Your task to perform on an android device: Show me the alarms in the clock app Image 0: 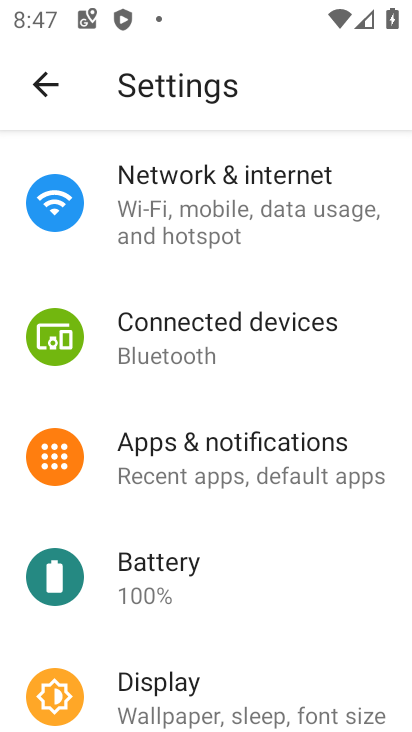
Step 0: press home button
Your task to perform on an android device: Show me the alarms in the clock app Image 1: 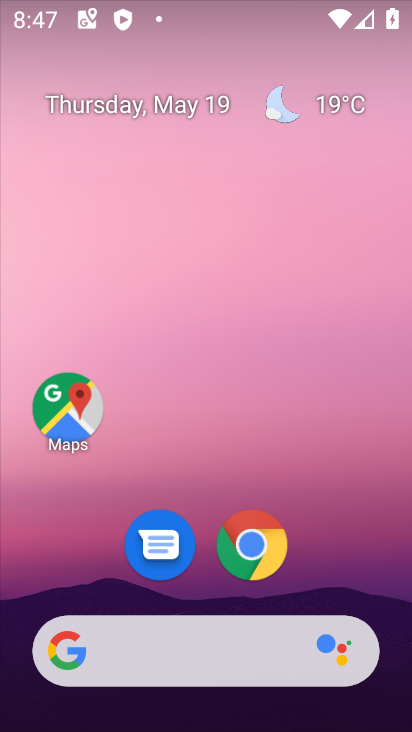
Step 1: drag from (366, 546) to (369, 144)
Your task to perform on an android device: Show me the alarms in the clock app Image 2: 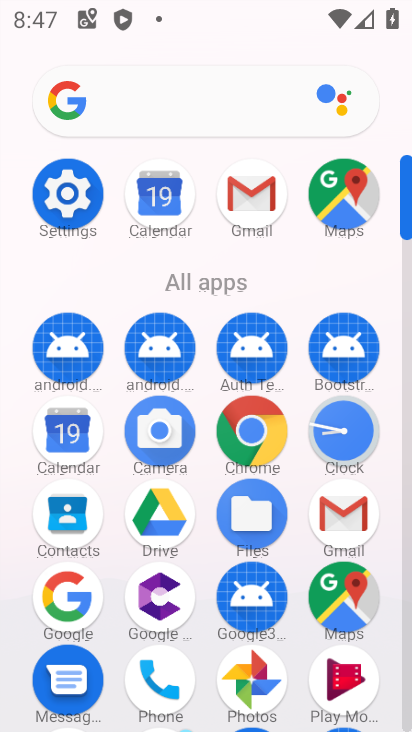
Step 2: click (337, 451)
Your task to perform on an android device: Show me the alarms in the clock app Image 3: 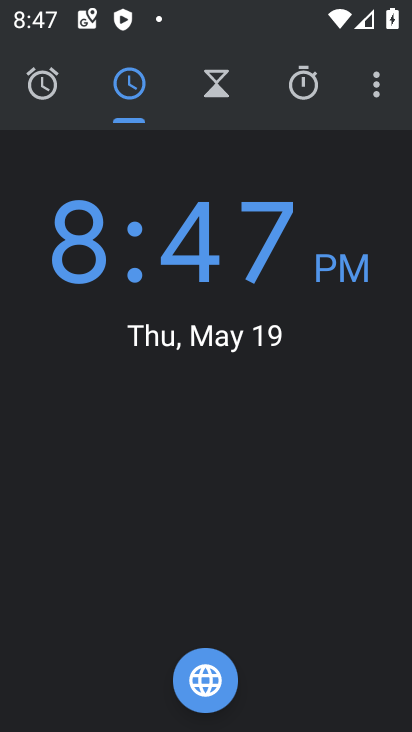
Step 3: click (51, 101)
Your task to perform on an android device: Show me the alarms in the clock app Image 4: 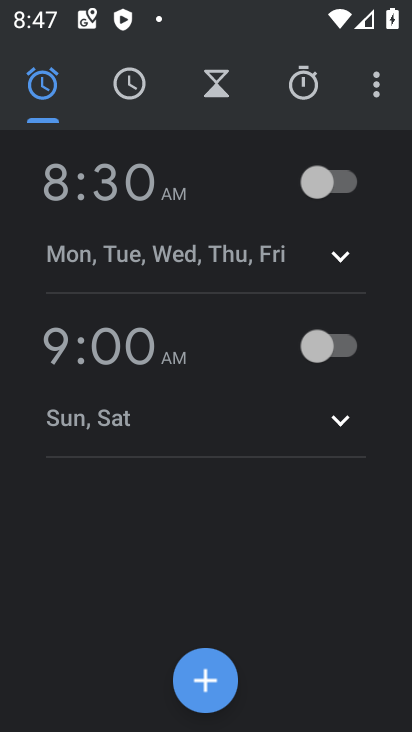
Step 4: task complete